Your task to perform on an android device: Show me productivity apps on the Play Store Image 0: 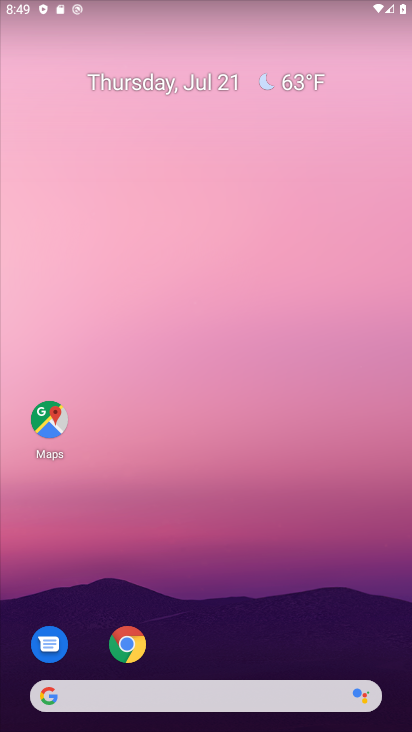
Step 0: press home button
Your task to perform on an android device: Show me productivity apps on the Play Store Image 1: 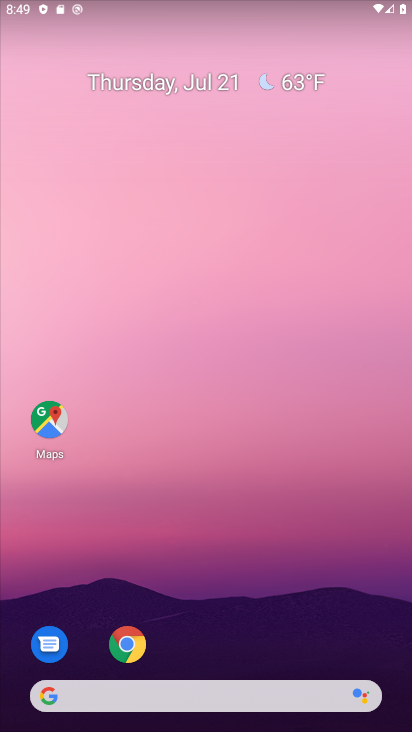
Step 1: drag from (201, 657) to (178, 120)
Your task to perform on an android device: Show me productivity apps on the Play Store Image 2: 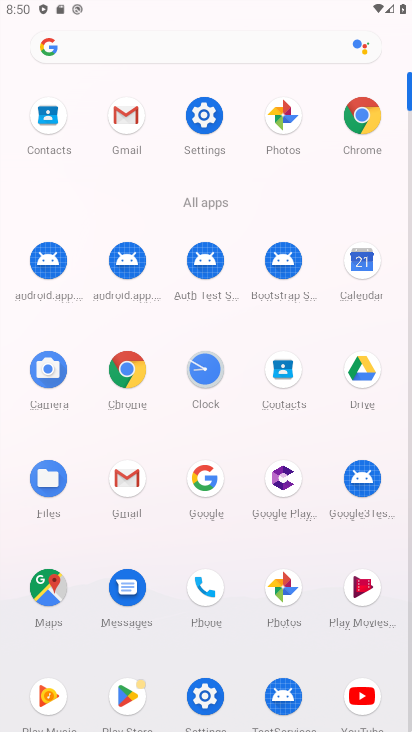
Step 2: click (128, 690)
Your task to perform on an android device: Show me productivity apps on the Play Store Image 3: 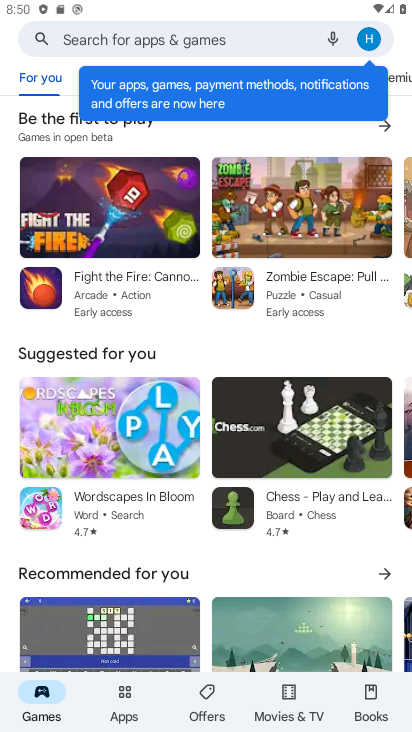
Step 3: click (119, 691)
Your task to perform on an android device: Show me productivity apps on the Play Store Image 4: 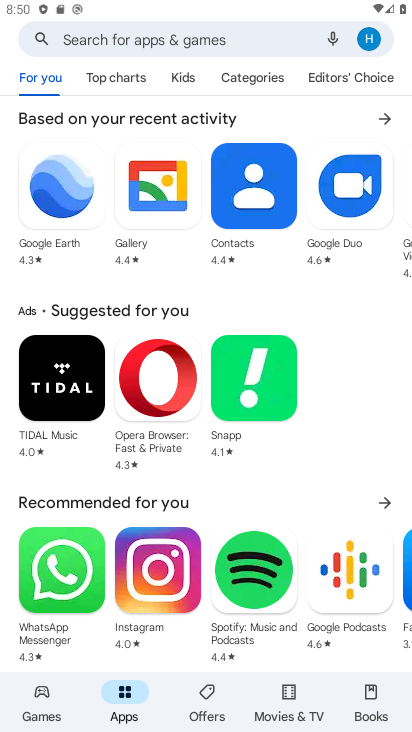
Step 4: click (246, 79)
Your task to perform on an android device: Show me productivity apps on the Play Store Image 5: 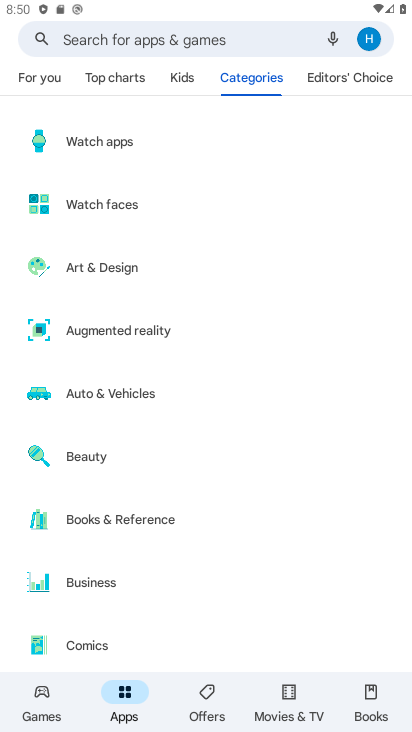
Step 5: drag from (171, 638) to (217, 198)
Your task to perform on an android device: Show me productivity apps on the Play Store Image 6: 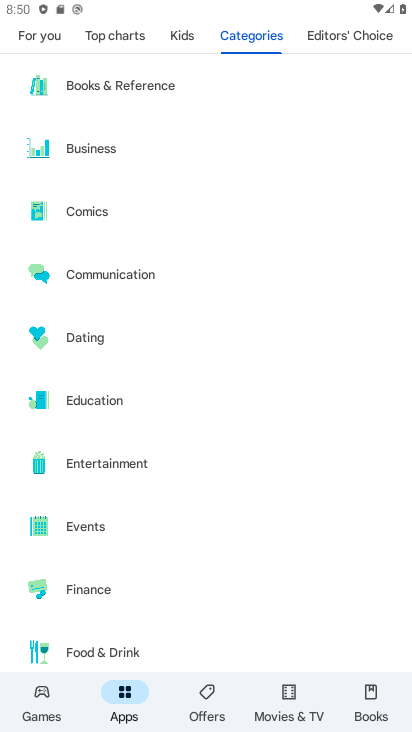
Step 6: drag from (150, 633) to (169, 332)
Your task to perform on an android device: Show me productivity apps on the Play Store Image 7: 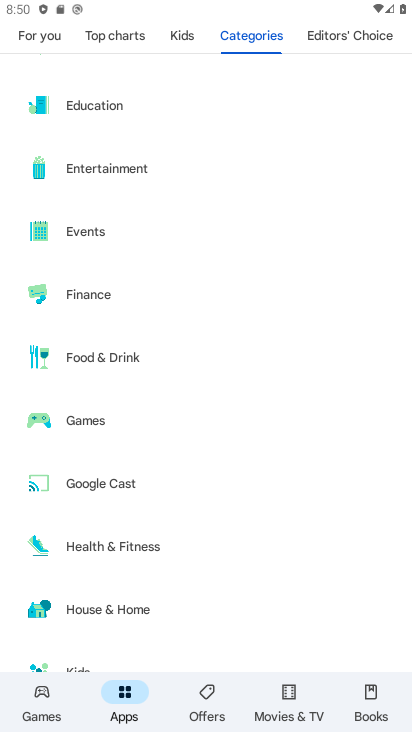
Step 7: drag from (166, 617) to (160, 177)
Your task to perform on an android device: Show me productivity apps on the Play Store Image 8: 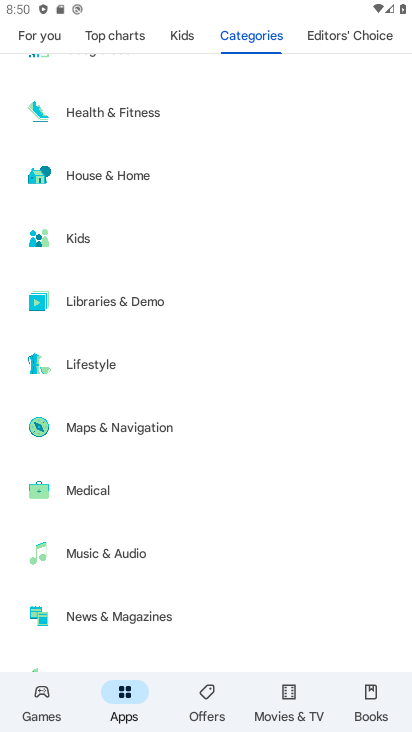
Step 8: drag from (200, 623) to (214, 176)
Your task to perform on an android device: Show me productivity apps on the Play Store Image 9: 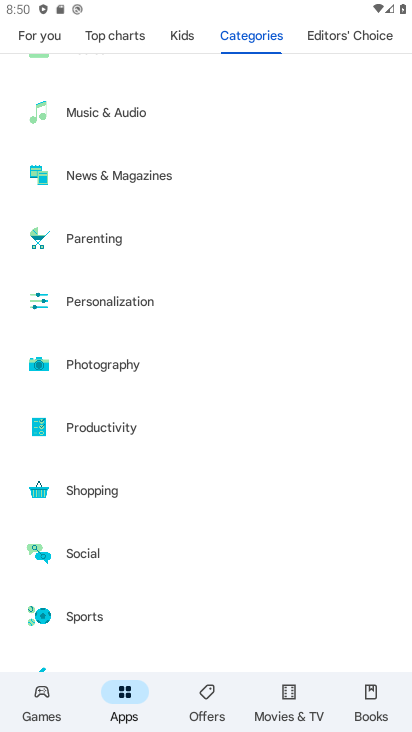
Step 9: click (147, 426)
Your task to perform on an android device: Show me productivity apps on the Play Store Image 10: 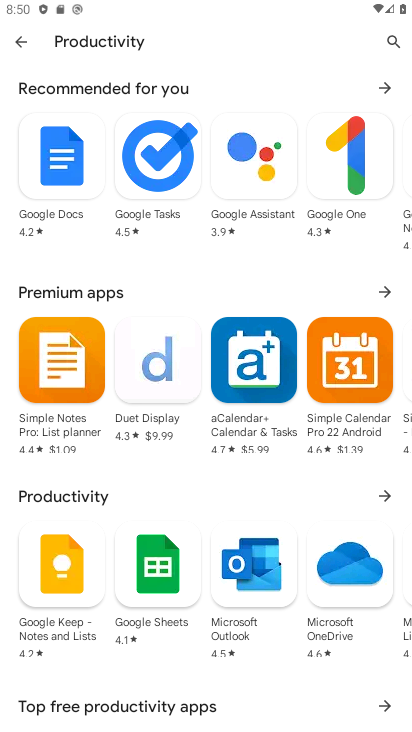
Step 10: click (383, 498)
Your task to perform on an android device: Show me productivity apps on the Play Store Image 11: 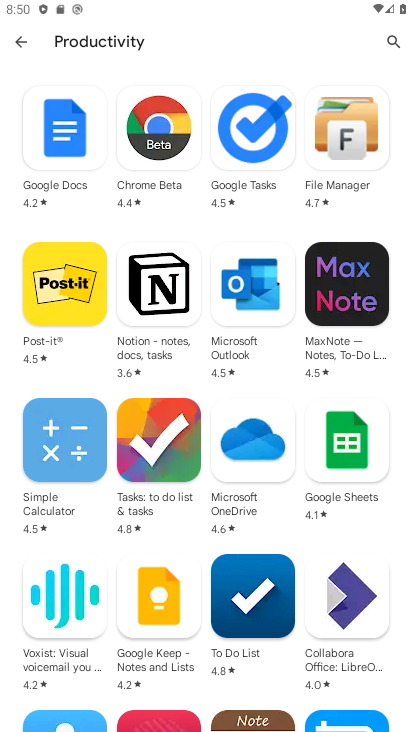
Step 11: task complete